Your task to perform on an android device: Open sound settings Image 0: 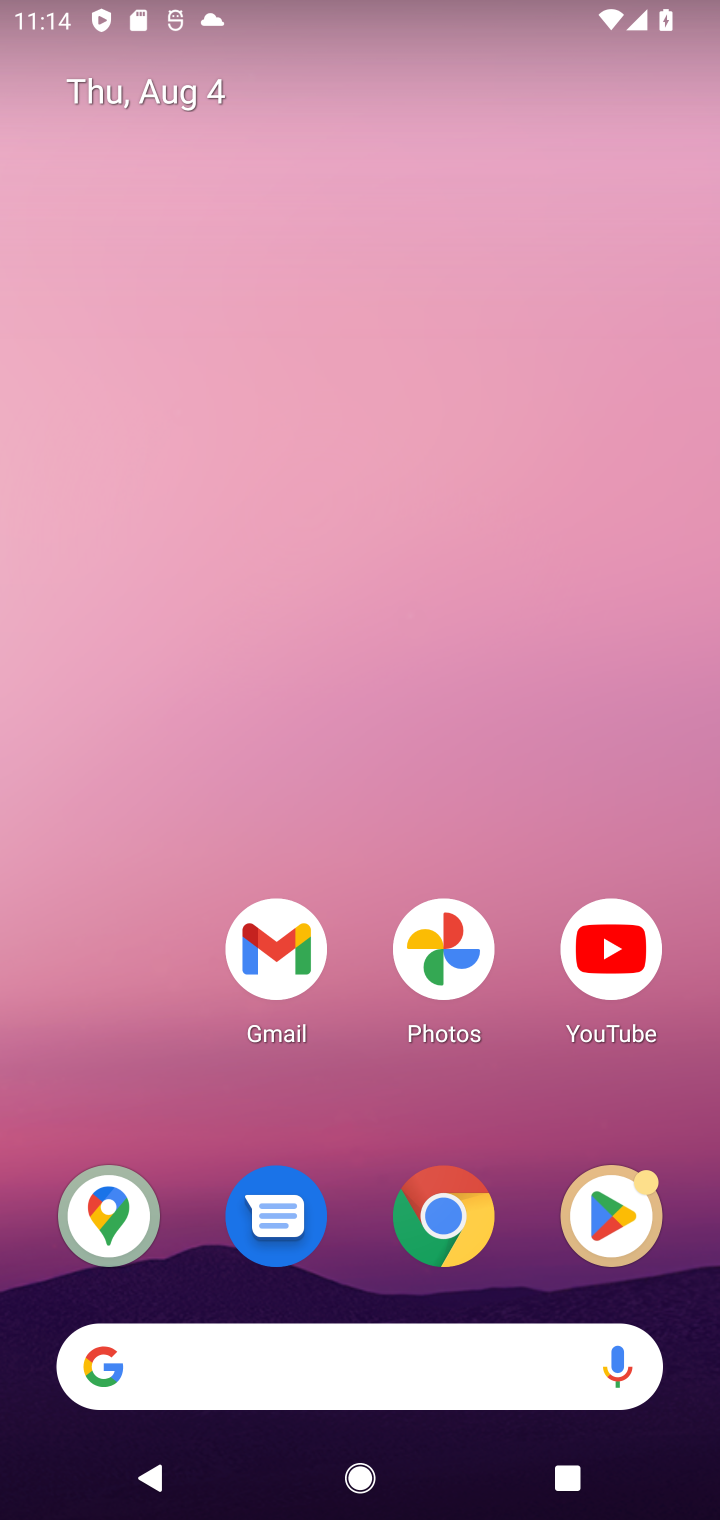
Step 0: press home button
Your task to perform on an android device: Open sound settings Image 1: 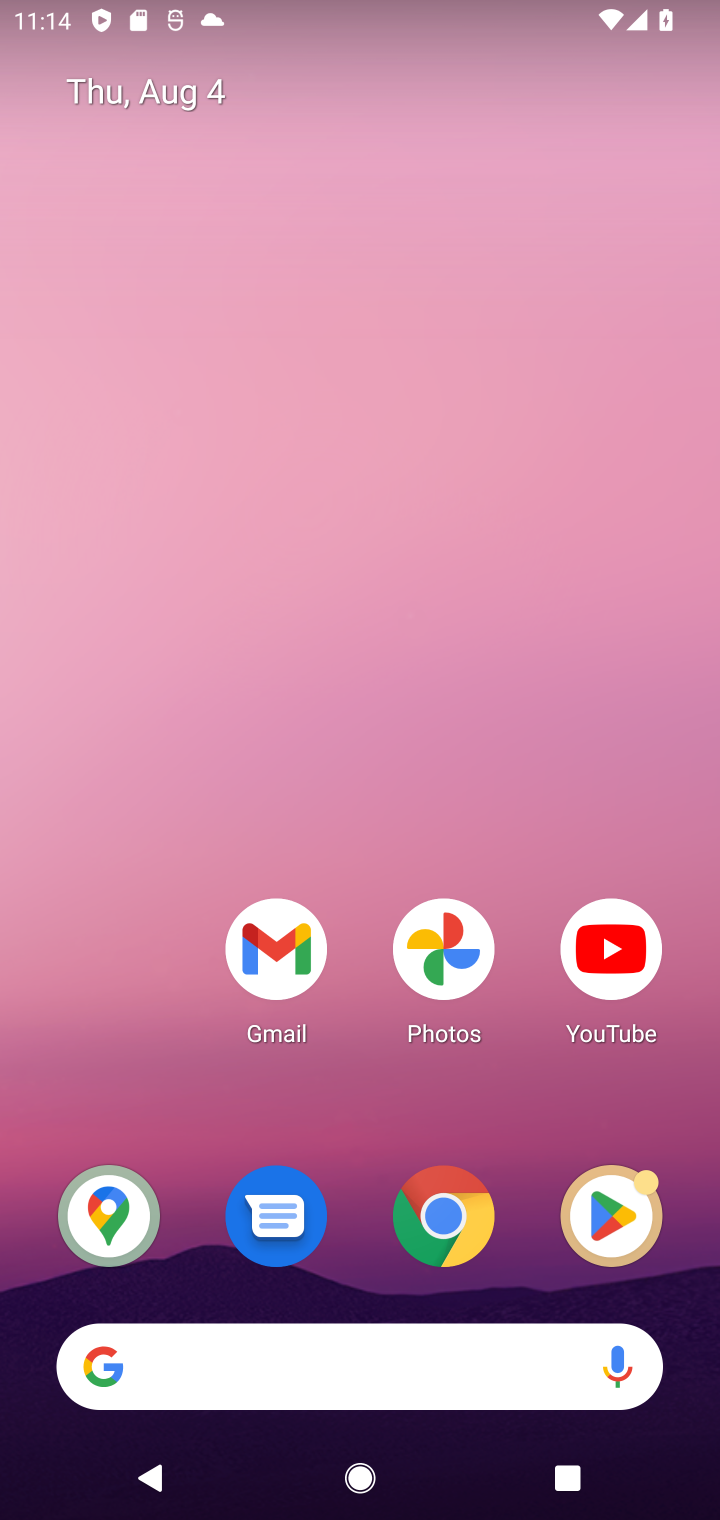
Step 1: drag from (327, 1350) to (388, 230)
Your task to perform on an android device: Open sound settings Image 2: 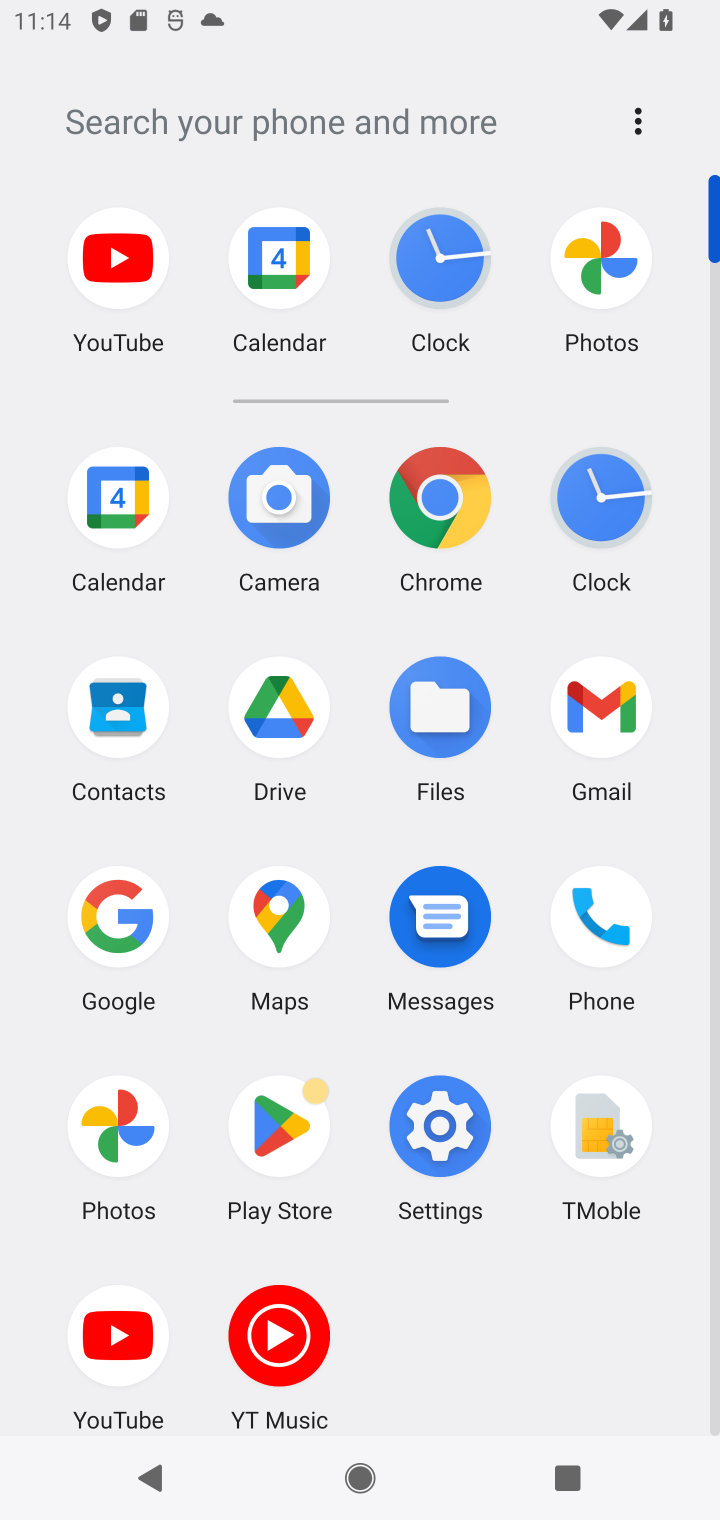
Step 2: click (438, 1127)
Your task to perform on an android device: Open sound settings Image 3: 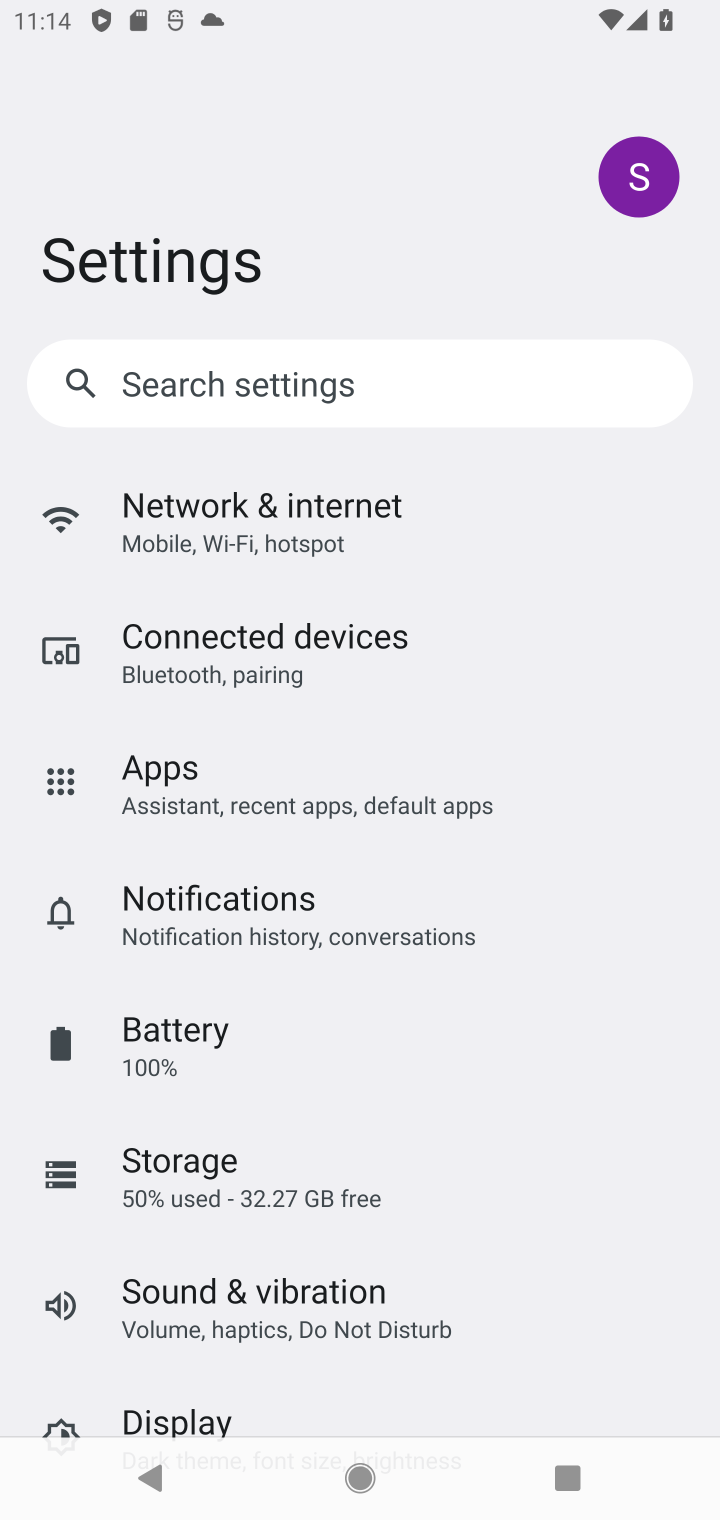
Step 3: click (266, 1298)
Your task to perform on an android device: Open sound settings Image 4: 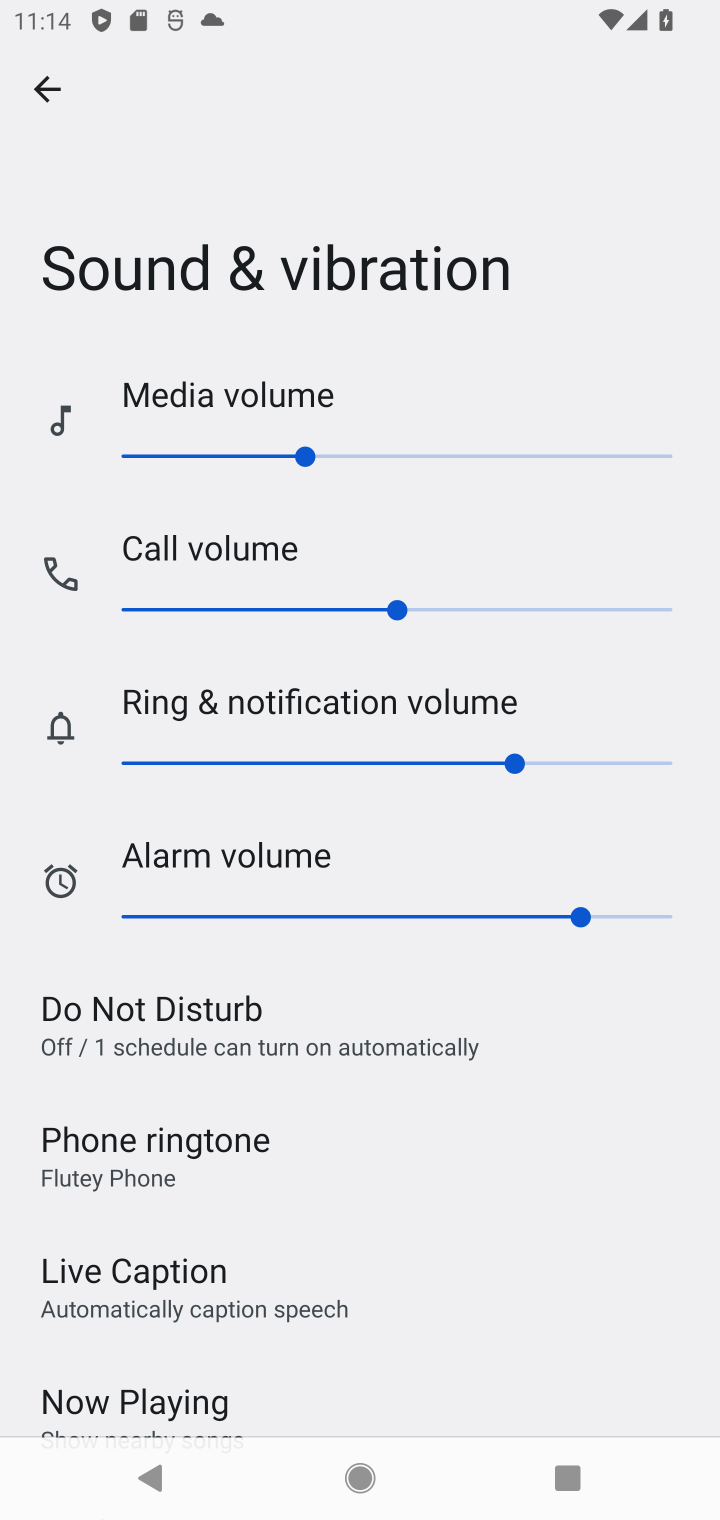
Step 4: task complete